Your task to perform on an android device: install app "Reddit" Image 0: 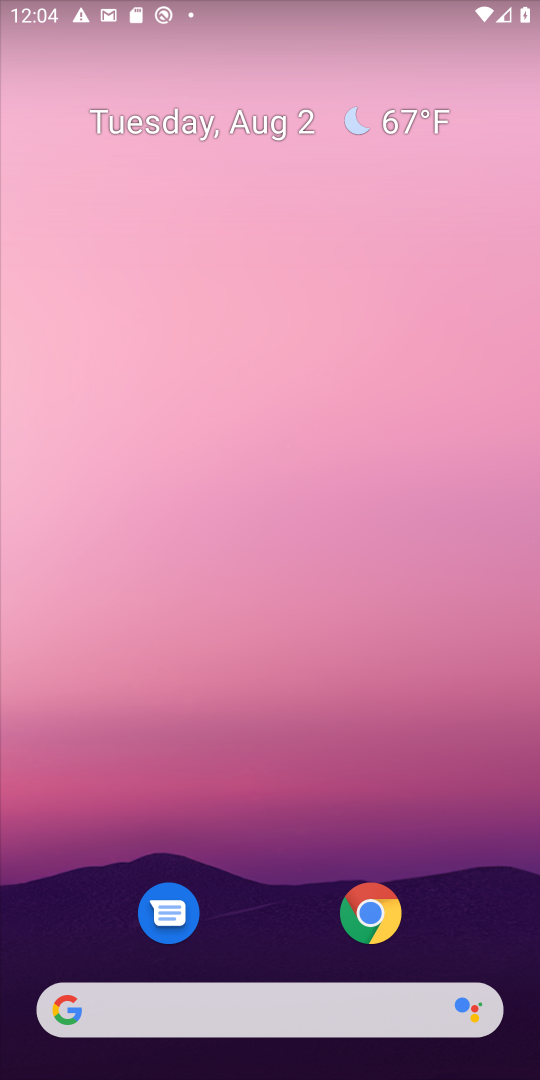
Step 0: drag from (525, 968) to (278, 141)
Your task to perform on an android device: install app "Reddit" Image 1: 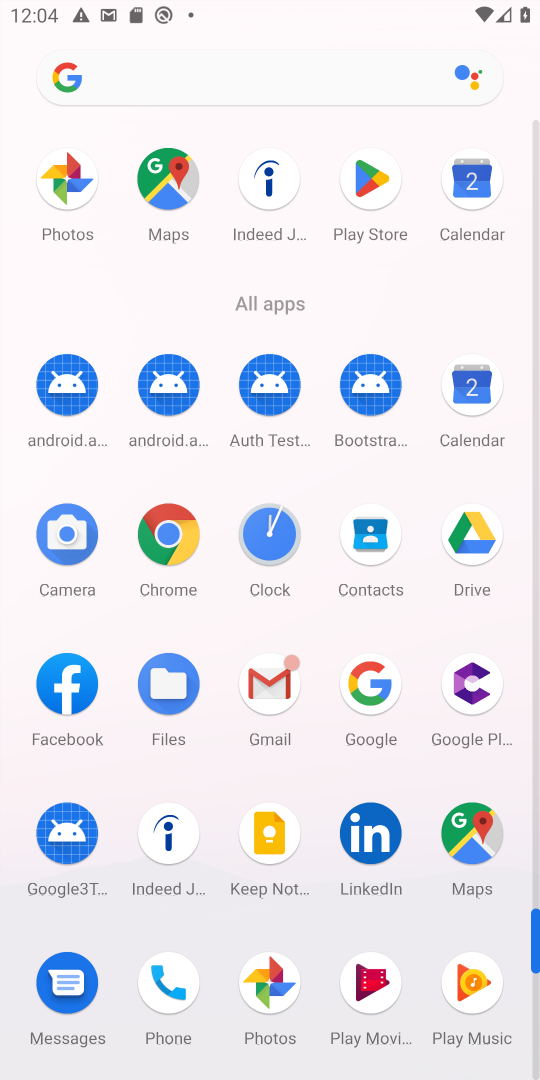
Step 1: click (361, 168)
Your task to perform on an android device: install app "Reddit" Image 2: 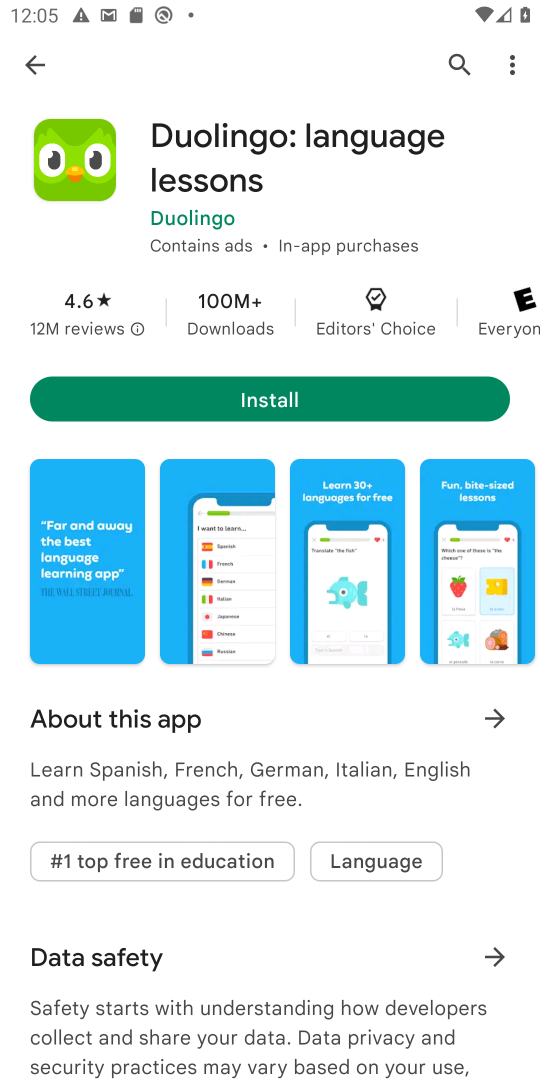
Step 2: click (214, 76)
Your task to perform on an android device: install app "Reddit" Image 3: 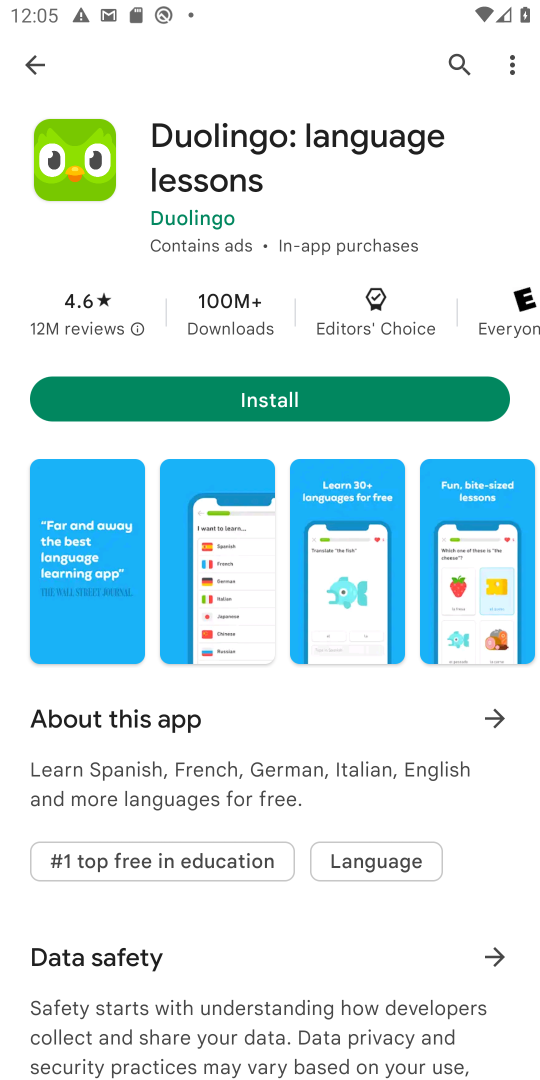
Step 3: click (465, 60)
Your task to perform on an android device: install app "Reddit" Image 4: 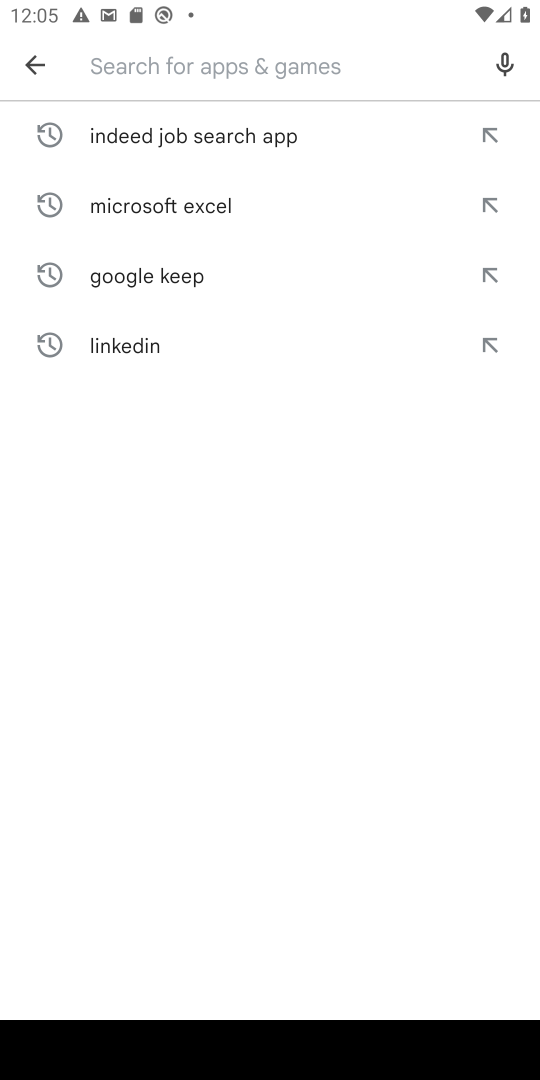
Step 4: type "Reddit"
Your task to perform on an android device: install app "Reddit" Image 5: 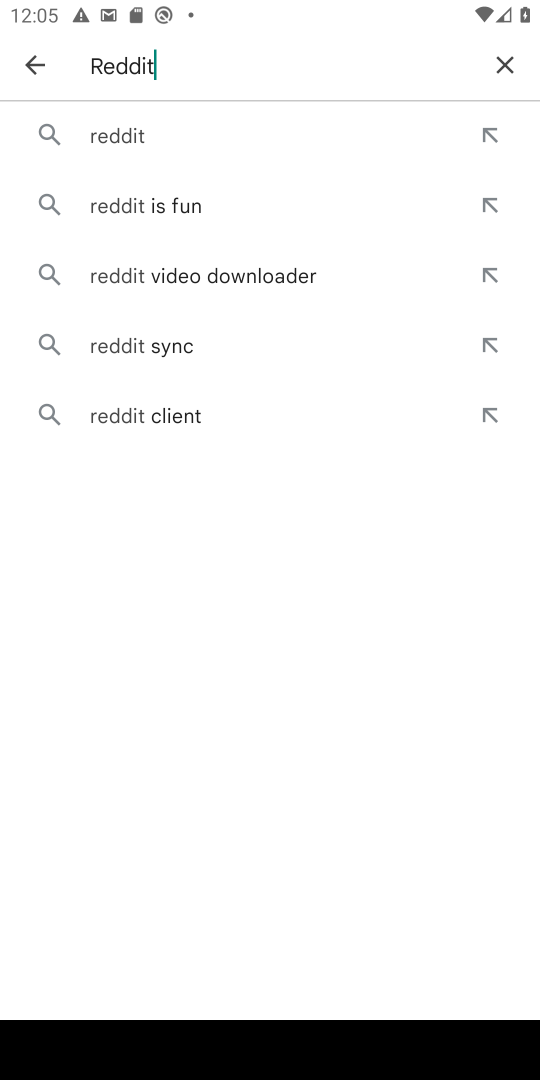
Step 5: click (124, 137)
Your task to perform on an android device: install app "Reddit" Image 6: 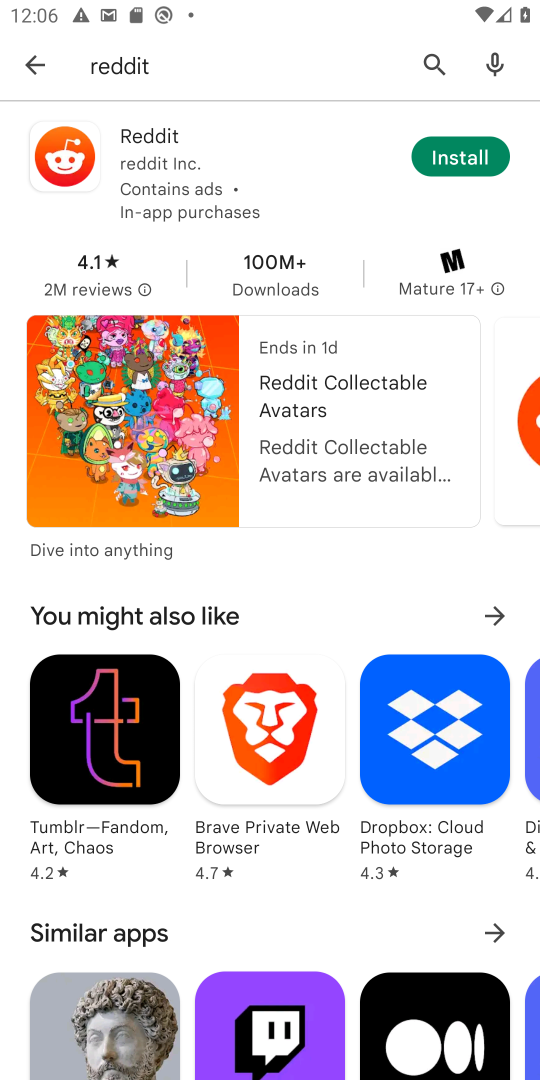
Step 6: click (486, 153)
Your task to perform on an android device: install app "Reddit" Image 7: 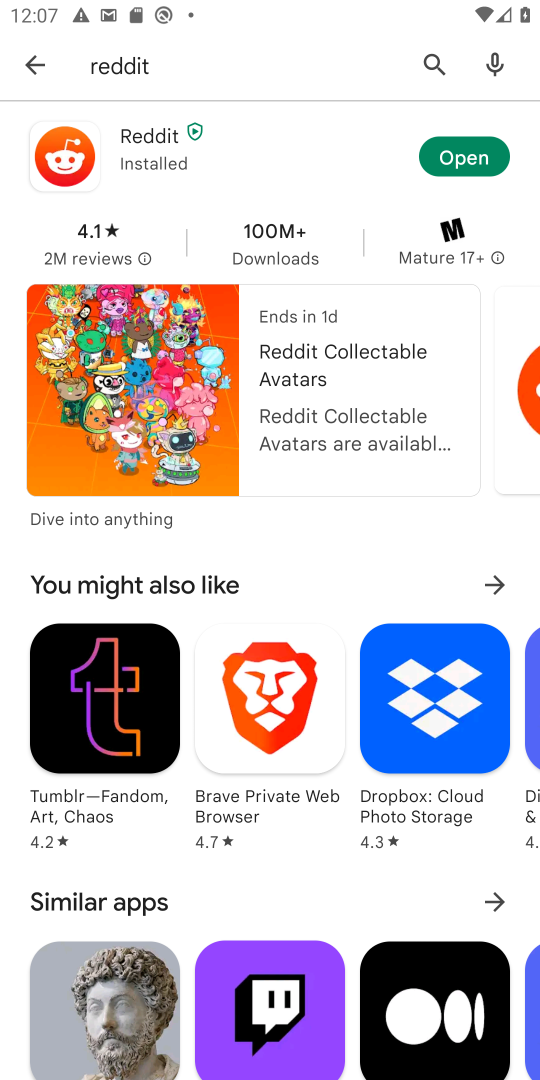
Step 7: task complete